Your task to perform on an android device: search for starred emails in the gmail app Image 0: 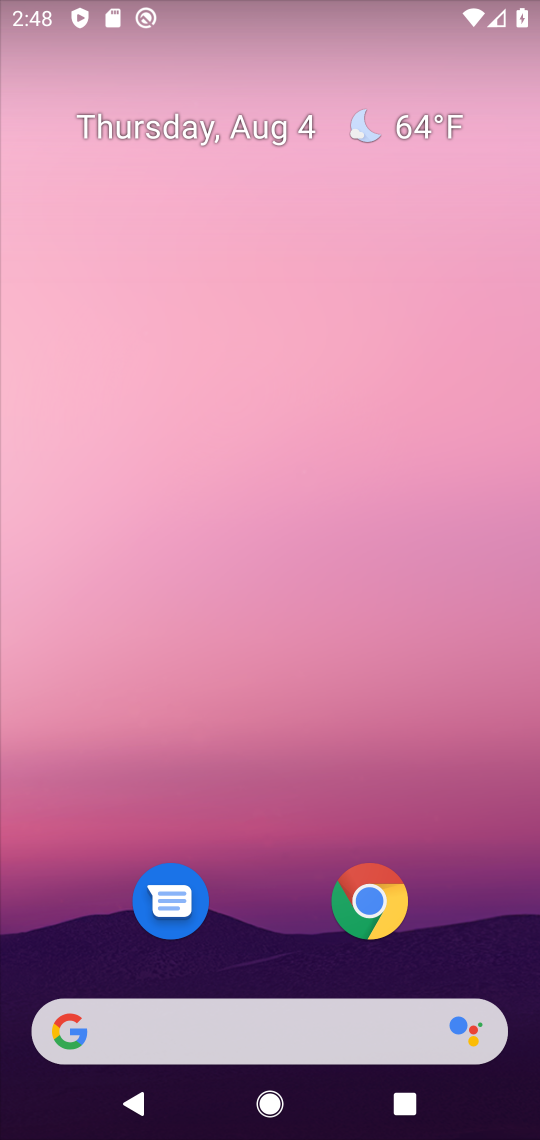
Step 0: drag from (253, 904) to (308, 83)
Your task to perform on an android device: search for starred emails in the gmail app Image 1: 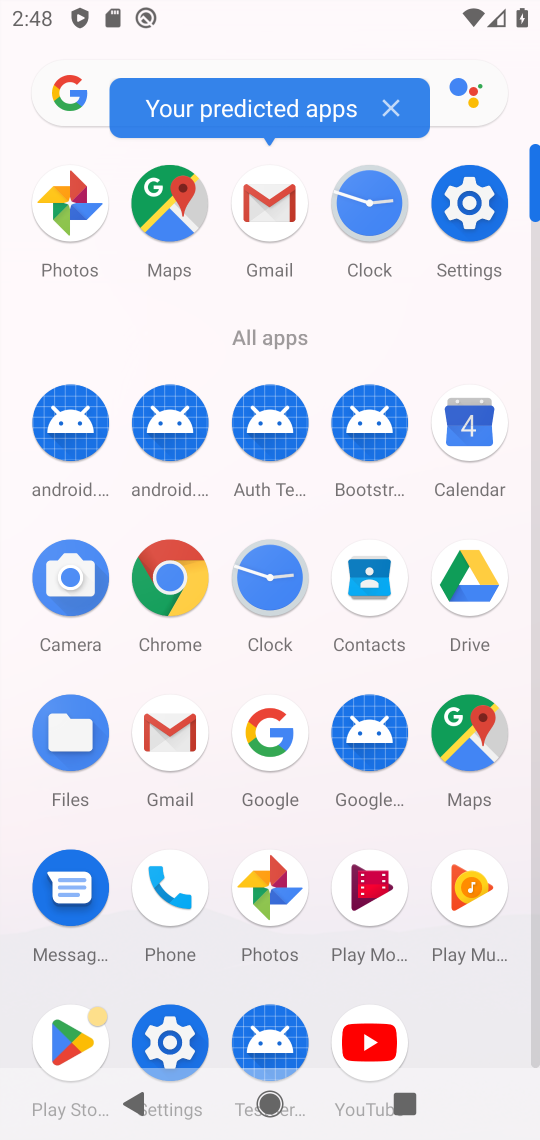
Step 1: click (258, 226)
Your task to perform on an android device: search for starred emails in the gmail app Image 2: 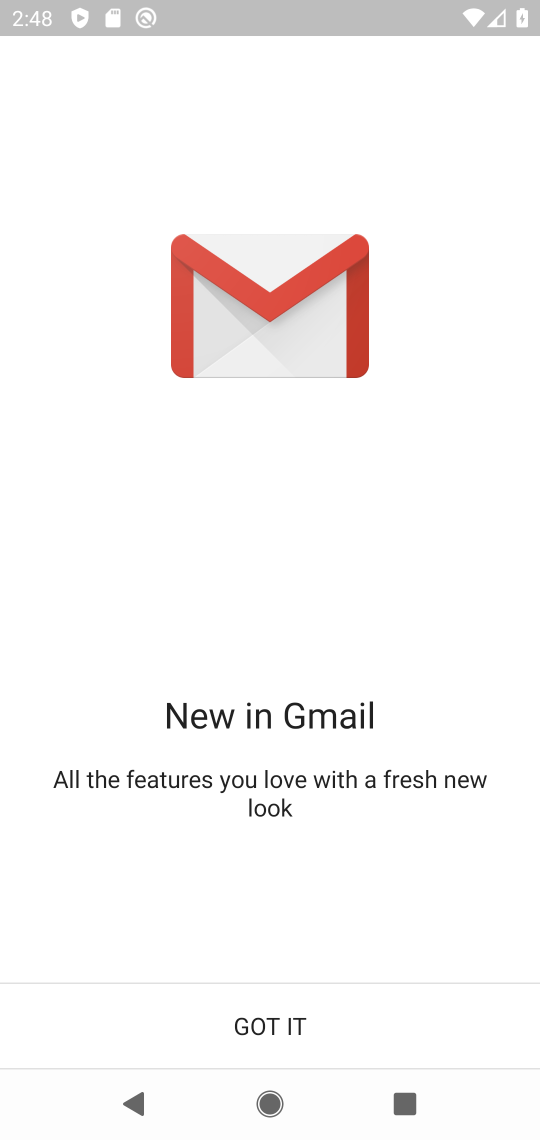
Step 2: click (269, 1017)
Your task to perform on an android device: search for starred emails in the gmail app Image 3: 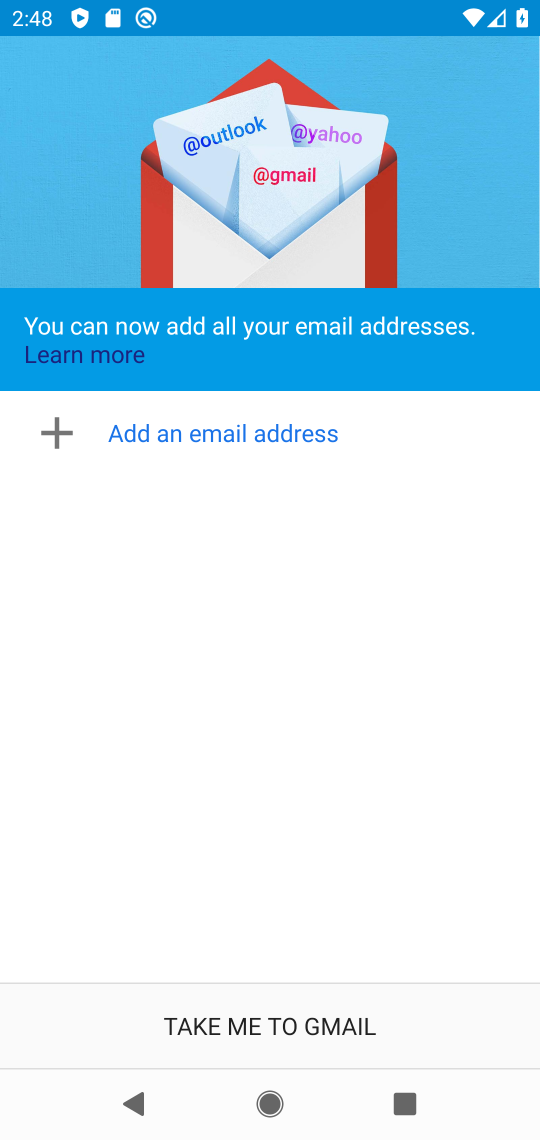
Step 3: click (269, 1017)
Your task to perform on an android device: search for starred emails in the gmail app Image 4: 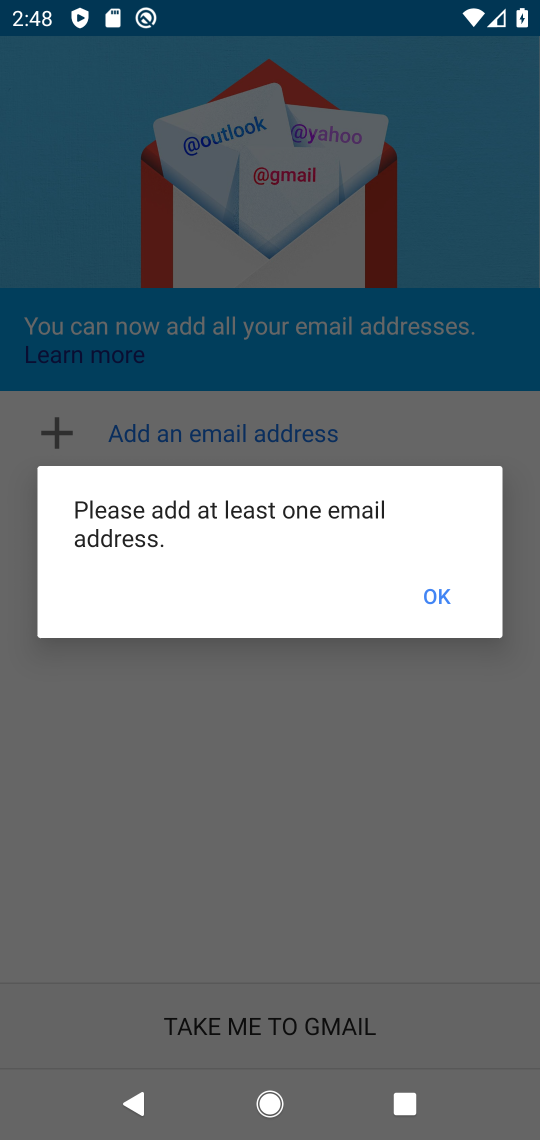
Step 4: click (428, 594)
Your task to perform on an android device: search for starred emails in the gmail app Image 5: 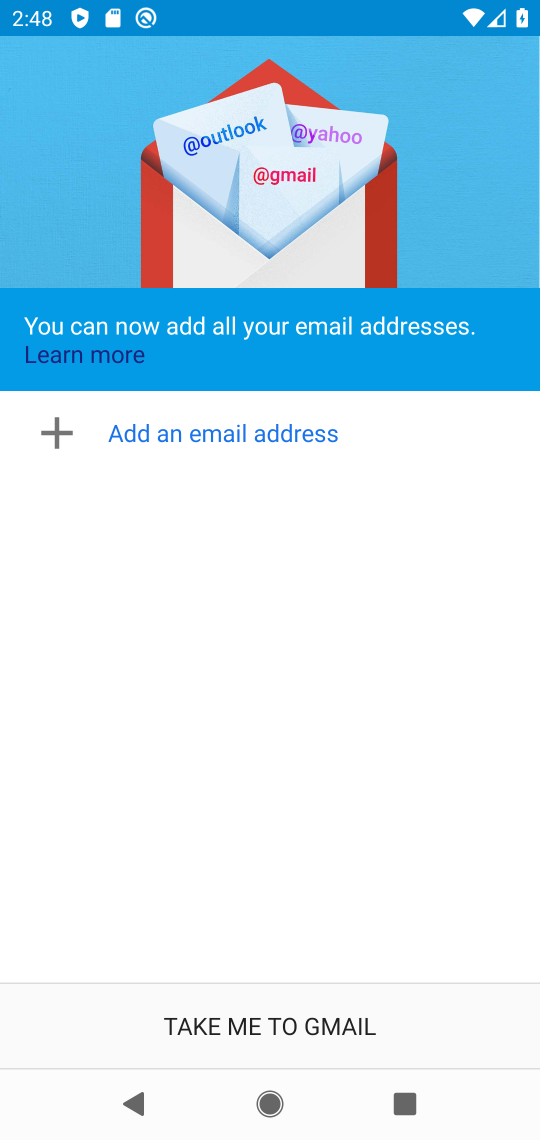
Step 5: task complete